Your task to perform on an android device: Search for bose soundsport free on walmart.com, select the first entry, and add it to the cart. Image 0: 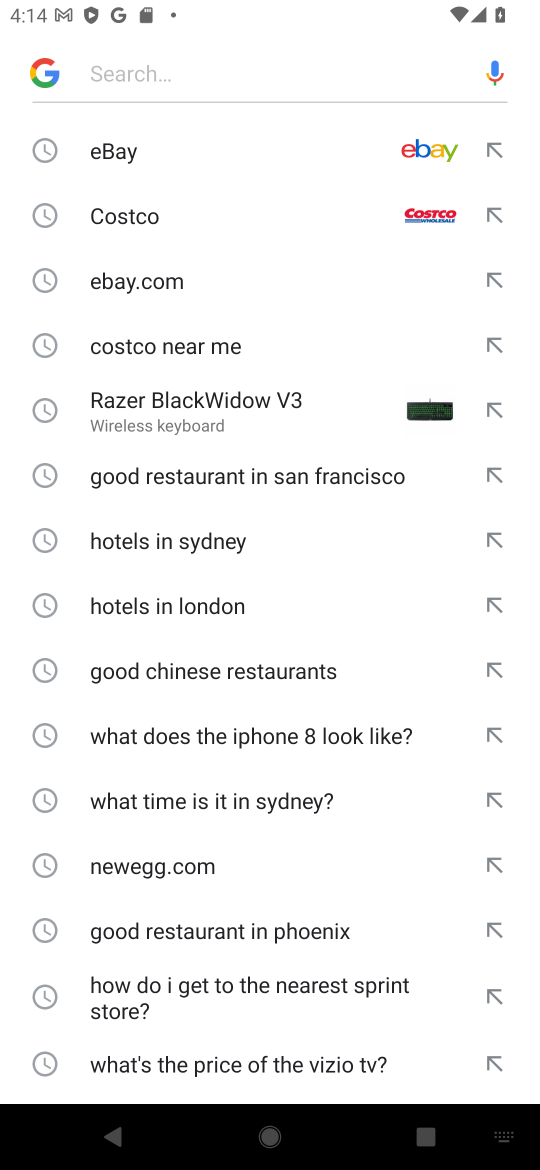
Step 0: press back button
Your task to perform on an android device: Search for bose soundsport free on walmart.com, select the first entry, and add it to the cart. Image 1: 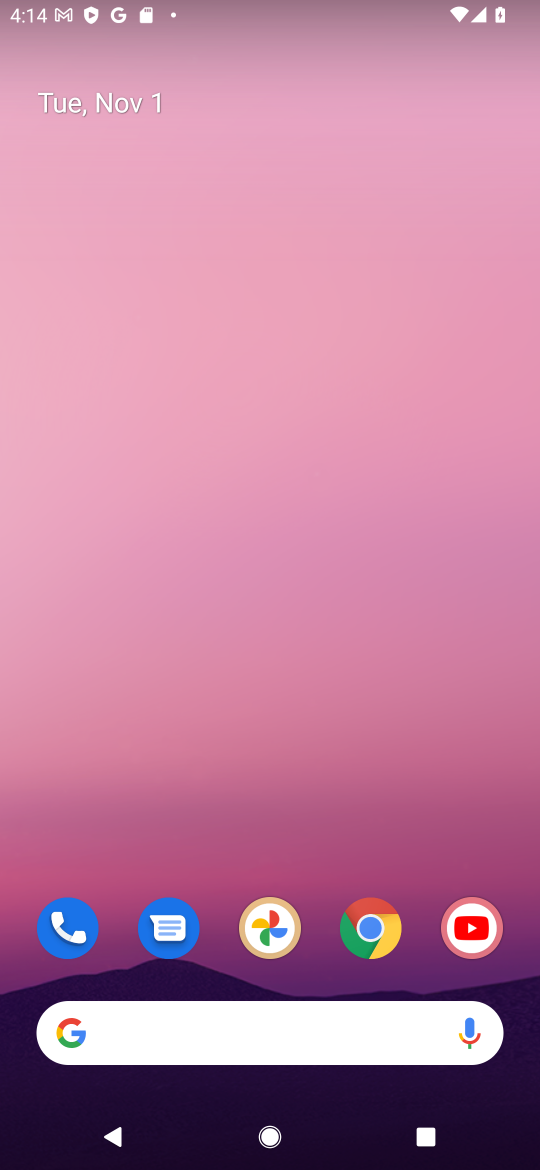
Step 1: click (377, 953)
Your task to perform on an android device: Search for bose soundsport free on walmart.com, select the first entry, and add it to the cart. Image 2: 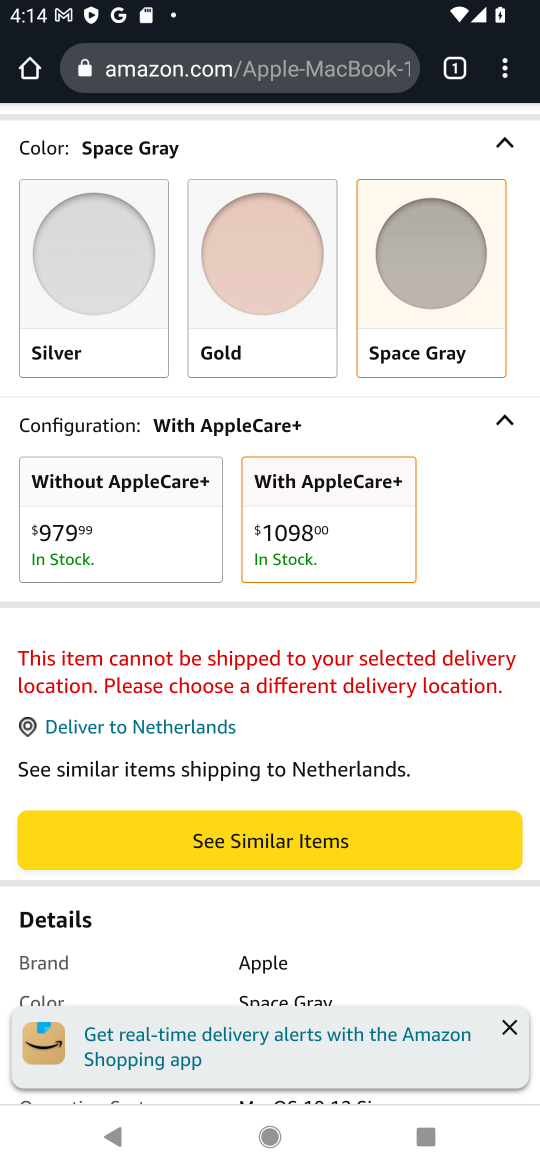
Step 2: click (220, 67)
Your task to perform on an android device: Search for bose soundsport free on walmart.com, select the first entry, and add it to the cart. Image 3: 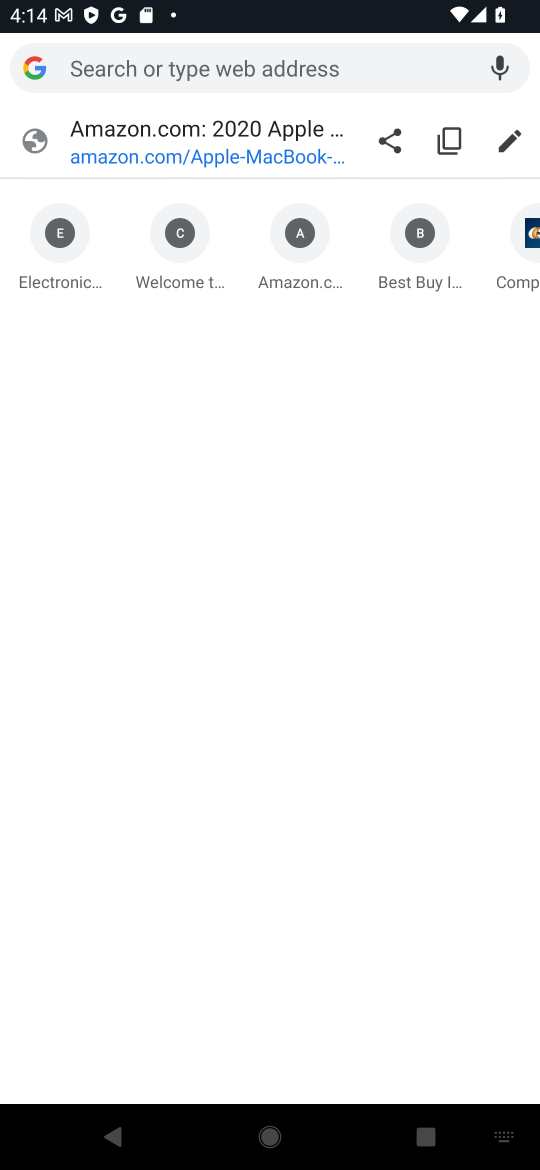
Step 3: type "walmart.com"
Your task to perform on an android device: Search for bose soundsport free on walmart.com, select the first entry, and add it to the cart. Image 4: 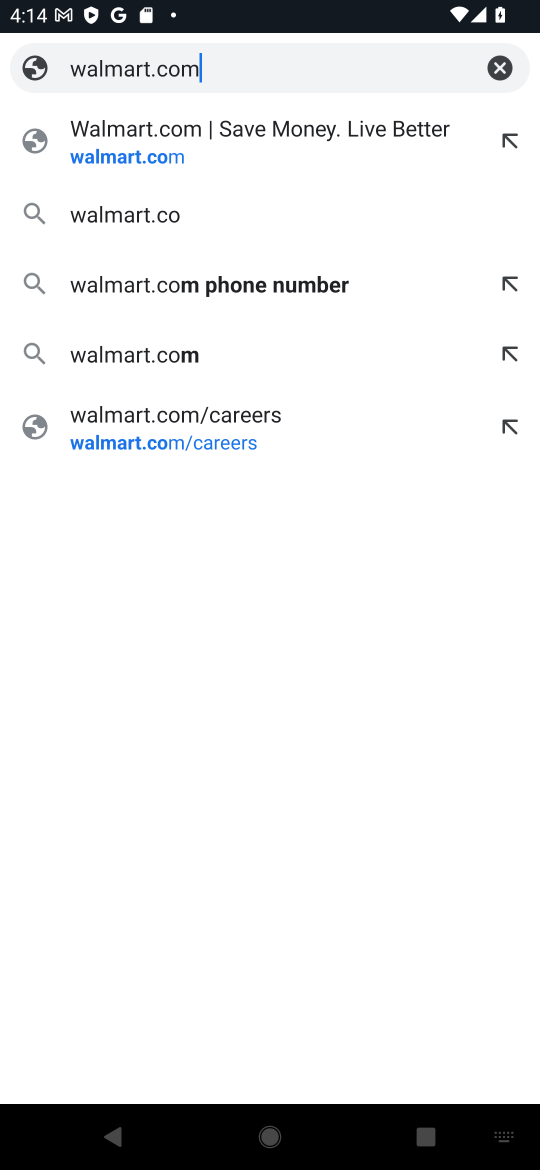
Step 4: type ""
Your task to perform on an android device: Search for bose soundsport free on walmart.com, select the first entry, and add it to the cart. Image 5: 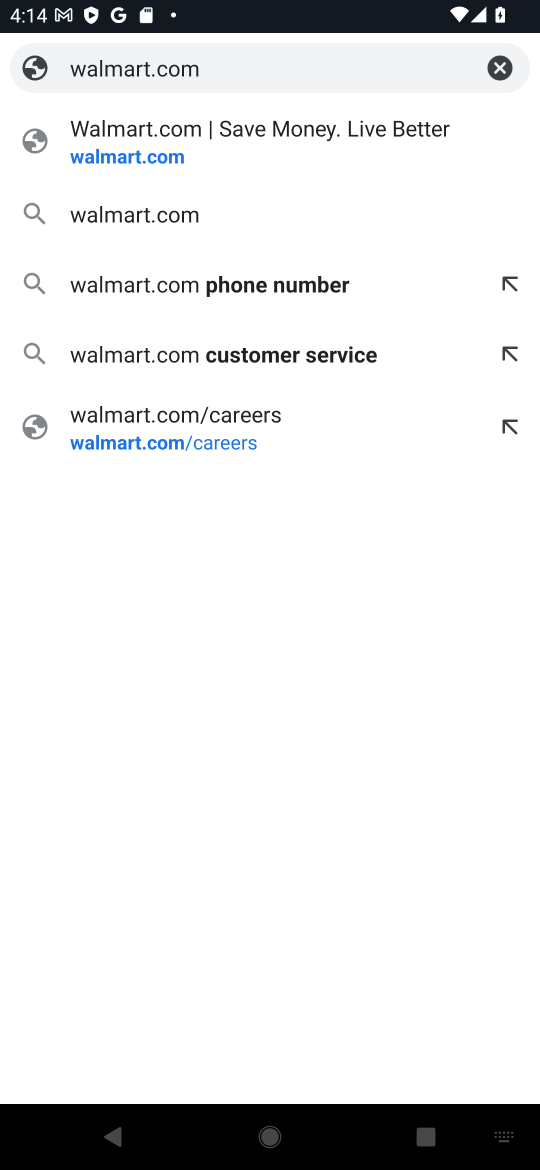
Step 5: press enter
Your task to perform on an android device: Search for bose soundsport free on walmart.com, select the first entry, and add it to the cart. Image 6: 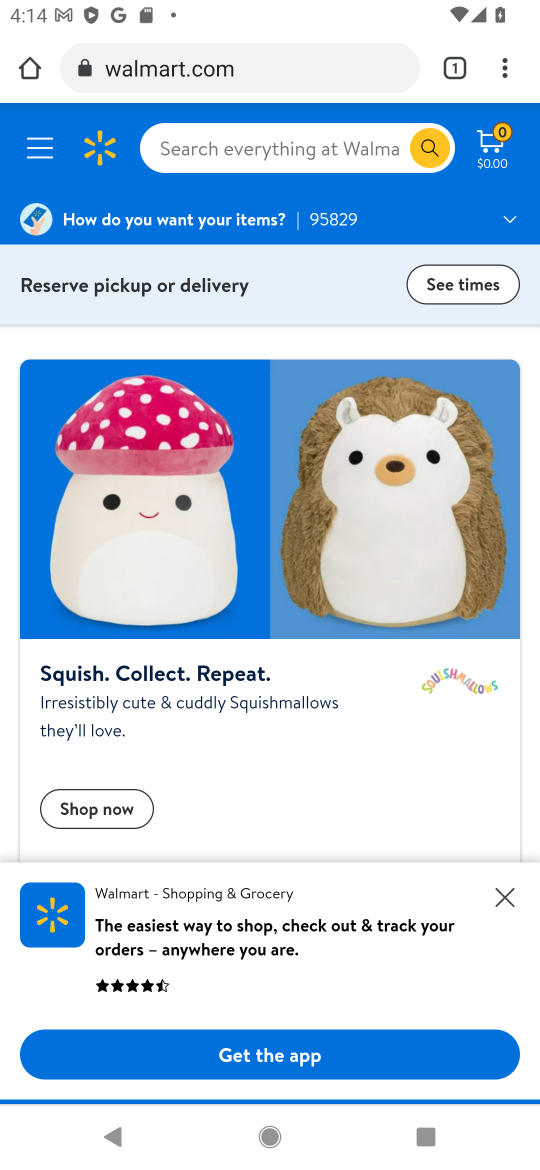
Step 6: click (244, 145)
Your task to perform on an android device: Search for bose soundsport free on walmart.com, select the first entry, and add it to the cart. Image 7: 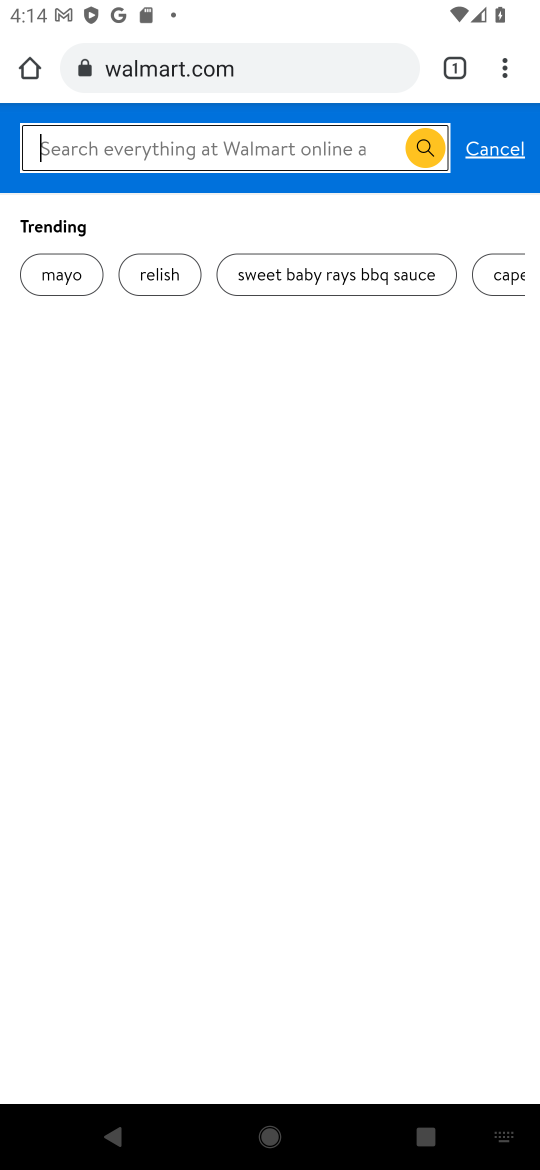
Step 7: type "bose soundsport free"
Your task to perform on an android device: Search for bose soundsport free on walmart.com, select the first entry, and add it to the cart. Image 8: 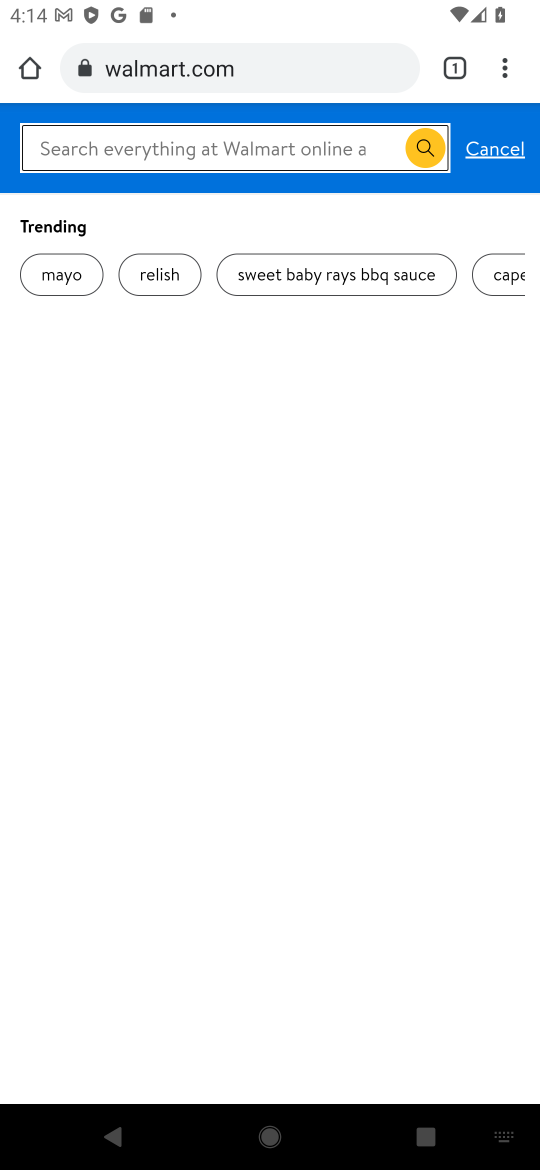
Step 8: type ""
Your task to perform on an android device: Search for bose soundsport free on walmart.com, select the first entry, and add it to the cart. Image 9: 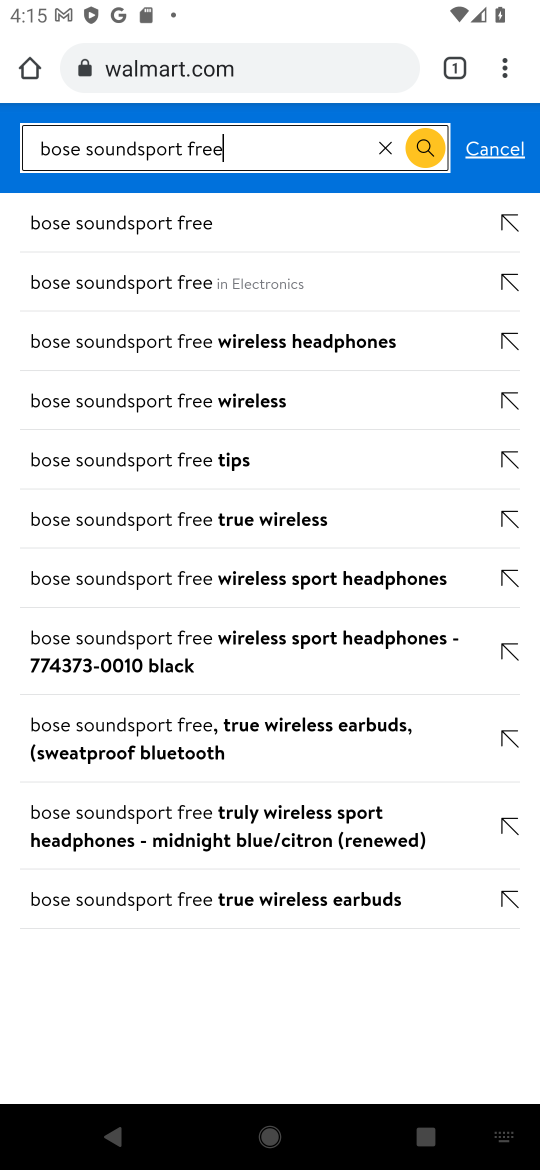
Step 9: press enter
Your task to perform on an android device: Search for bose soundsport free on walmart.com, select the first entry, and add it to the cart. Image 10: 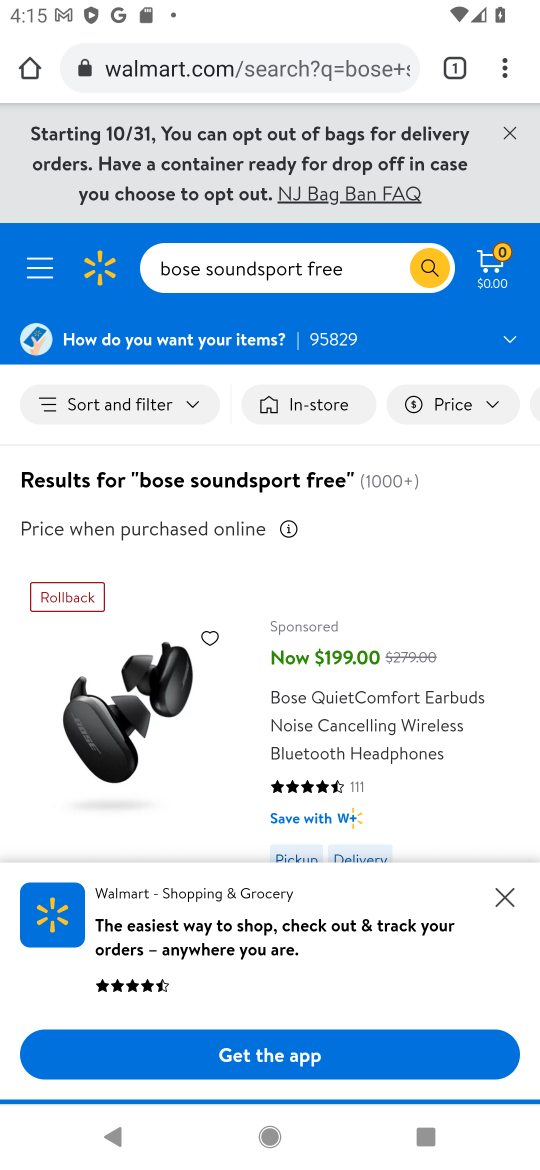
Step 10: drag from (350, 786) to (352, 619)
Your task to perform on an android device: Search for bose soundsport free on walmart.com, select the first entry, and add it to the cart. Image 11: 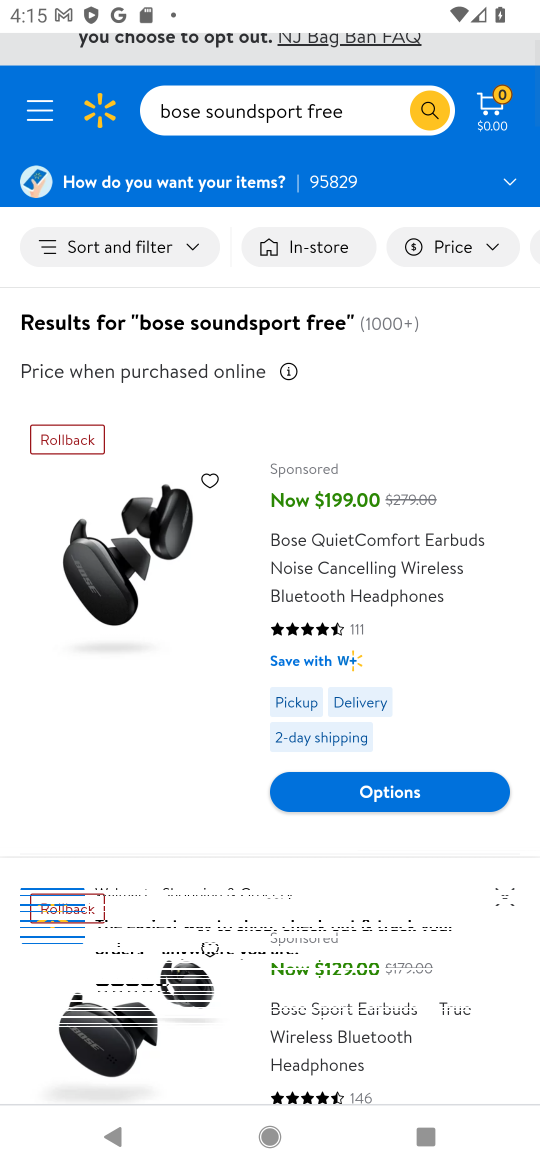
Step 11: click (500, 897)
Your task to perform on an android device: Search for bose soundsport free on walmart.com, select the first entry, and add it to the cart. Image 12: 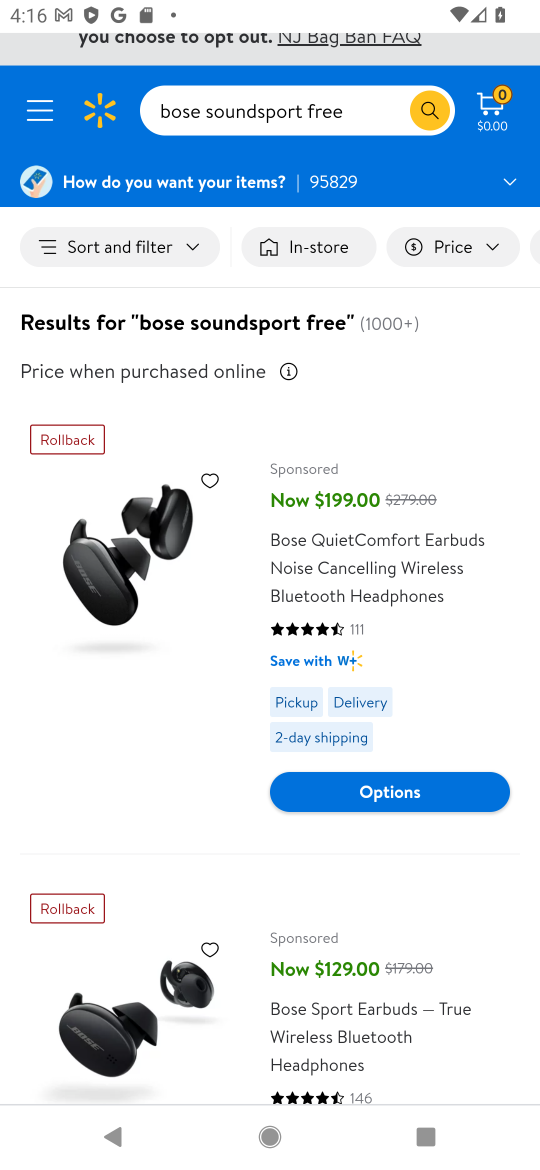
Step 12: drag from (459, 1003) to (461, 859)
Your task to perform on an android device: Search for bose soundsport free on walmart.com, select the first entry, and add it to the cart. Image 13: 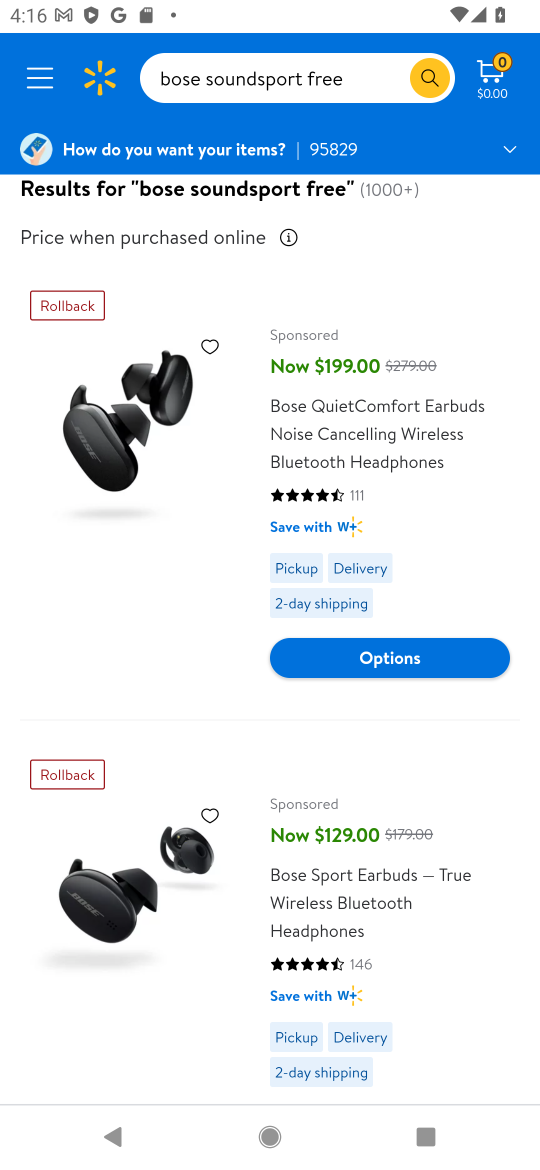
Step 13: drag from (400, 375) to (394, 163)
Your task to perform on an android device: Search for bose soundsport free on walmart.com, select the first entry, and add it to the cart. Image 14: 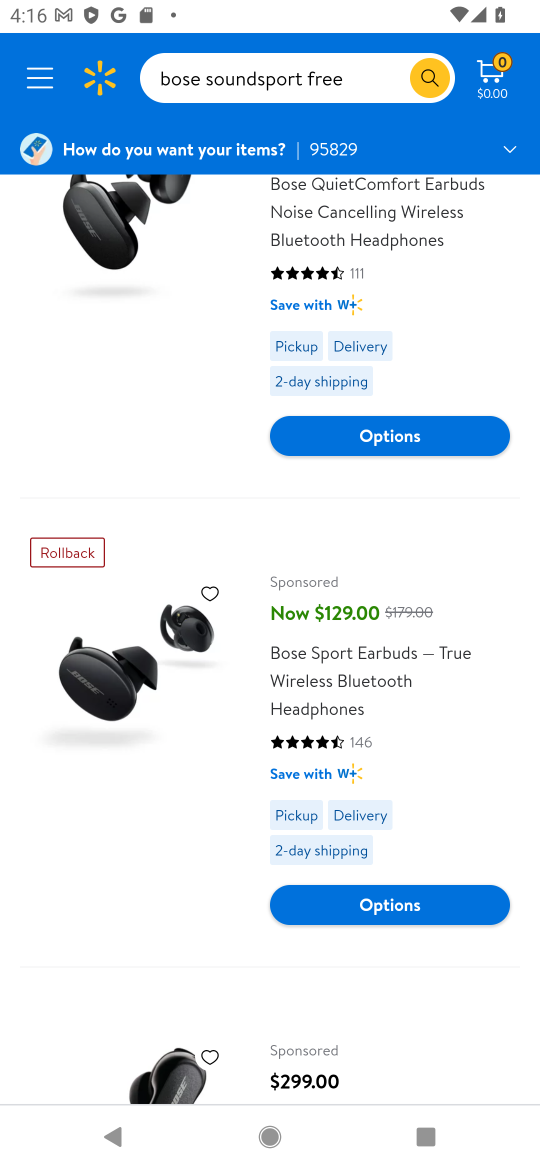
Step 14: drag from (396, 1077) to (417, 1158)
Your task to perform on an android device: Search for bose soundsport free on walmart.com, select the first entry, and add it to the cart. Image 15: 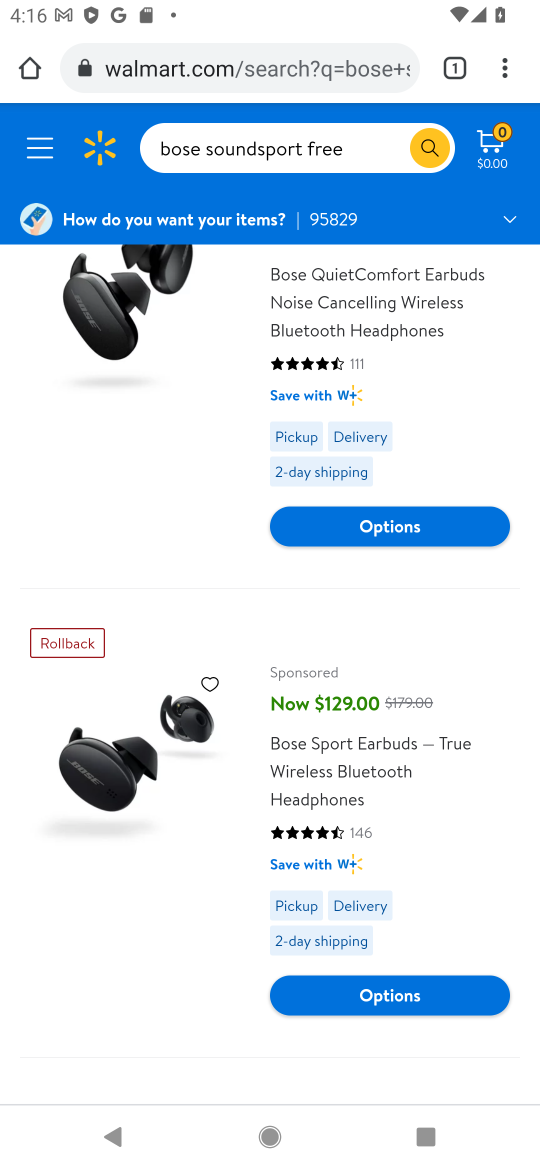
Step 15: click (396, 328)
Your task to perform on an android device: Search for bose soundsport free on walmart.com, select the first entry, and add it to the cart. Image 16: 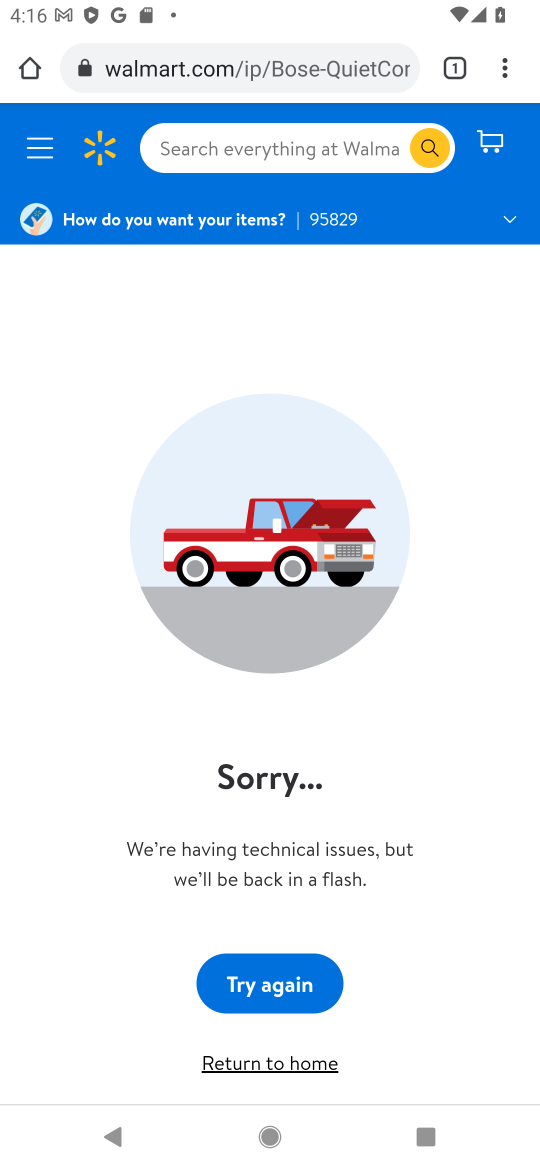
Step 16: task complete